Your task to perform on an android device: Open wifi settings Image 0: 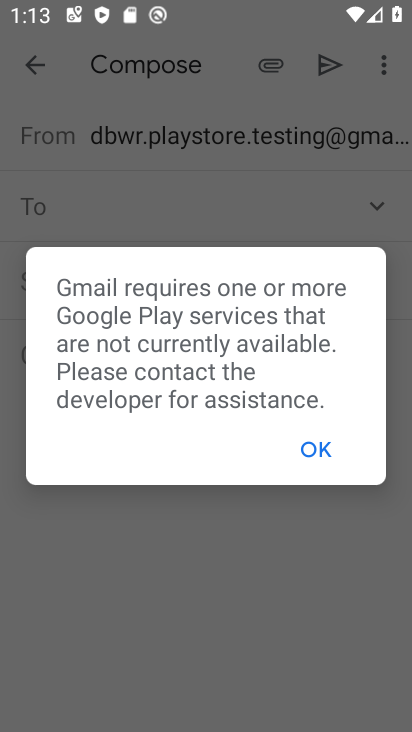
Step 0: press home button
Your task to perform on an android device: Open wifi settings Image 1: 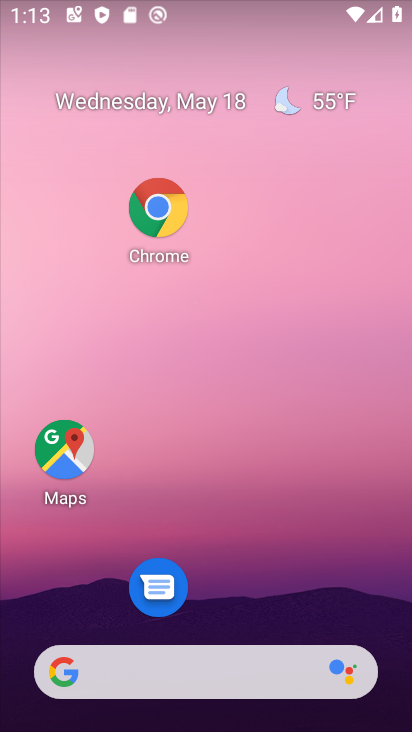
Step 1: drag from (267, 584) to (289, 136)
Your task to perform on an android device: Open wifi settings Image 2: 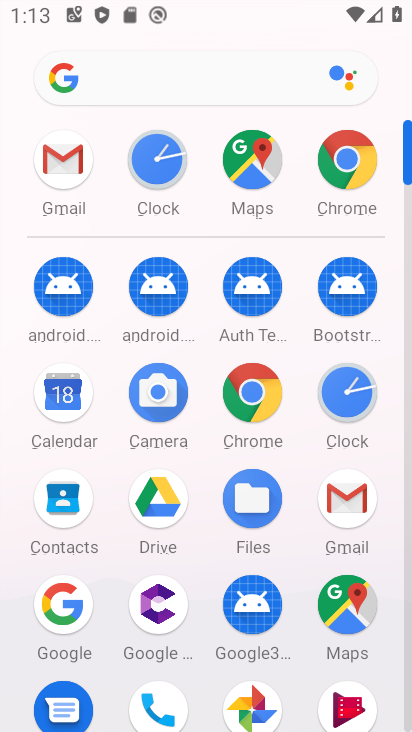
Step 2: drag from (189, 637) to (202, 342)
Your task to perform on an android device: Open wifi settings Image 3: 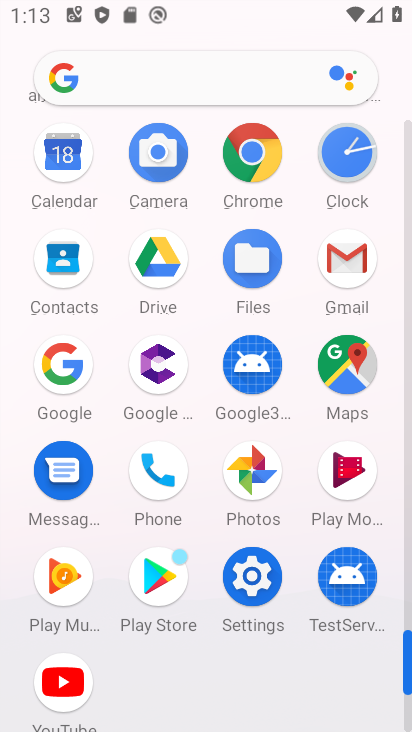
Step 3: click (246, 578)
Your task to perform on an android device: Open wifi settings Image 4: 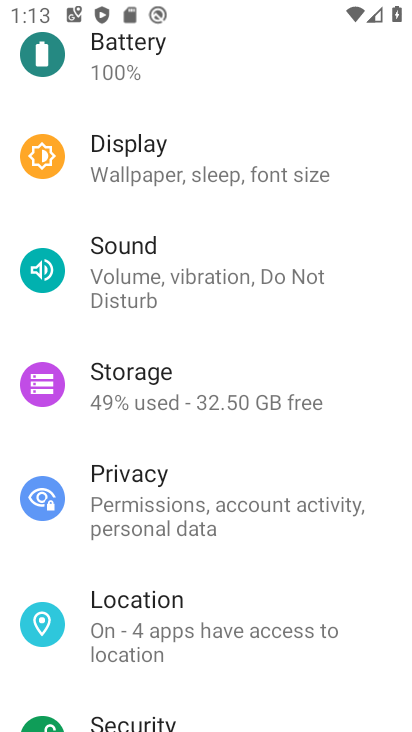
Step 4: drag from (193, 148) to (208, 408)
Your task to perform on an android device: Open wifi settings Image 5: 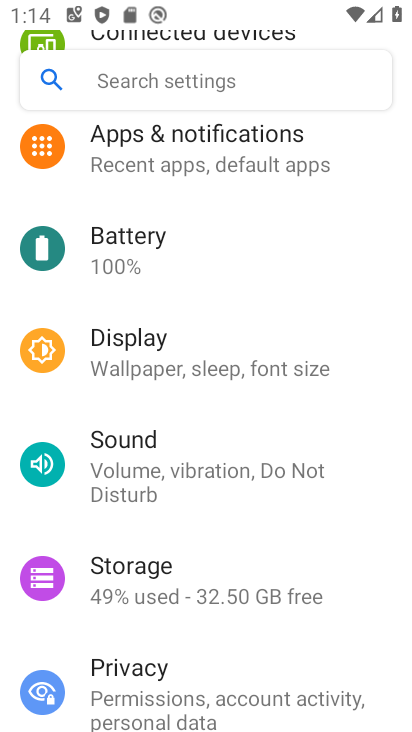
Step 5: click (210, 445)
Your task to perform on an android device: Open wifi settings Image 6: 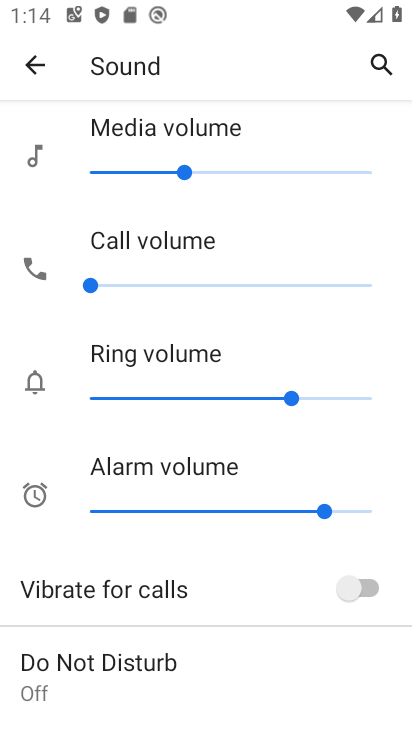
Step 6: press back button
Your task to perform on an android device: Open wifi settings Image 7: 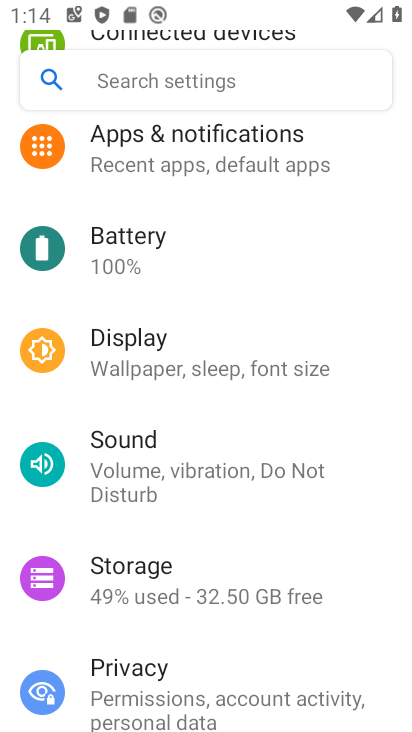
Step 7: drag from (277, 281) to (254, 464)
Your task to perform on an android device: Open wifi settings Image 8: 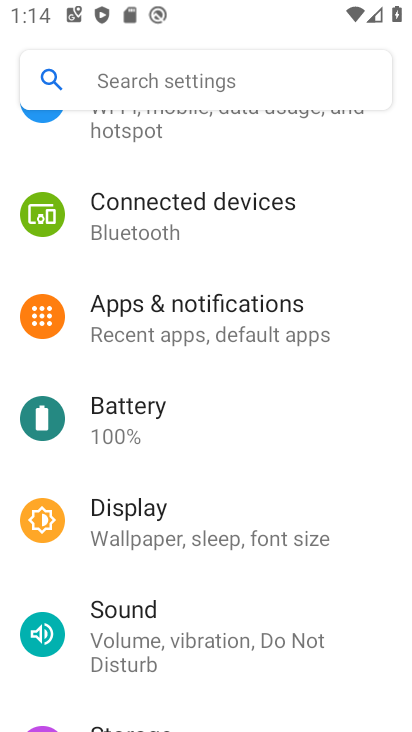
Step 8: drag from (168, 215) to (177, 461)
Your task to perform on an android device: Open wifi settings Image 9: 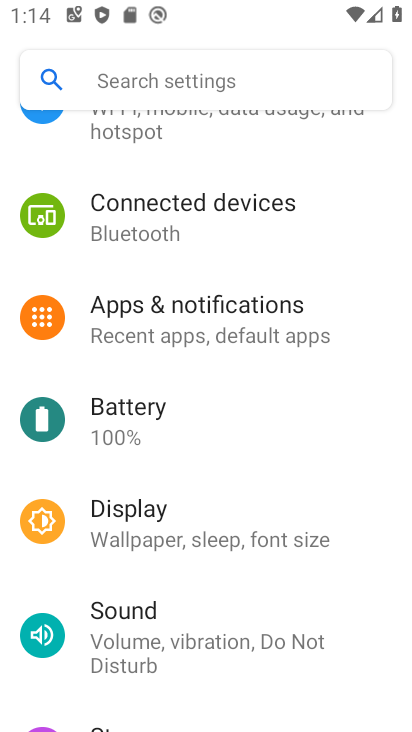
Step 9: click (144, 131)
Your task to perform on an android device: Open wifi settings Image 10: 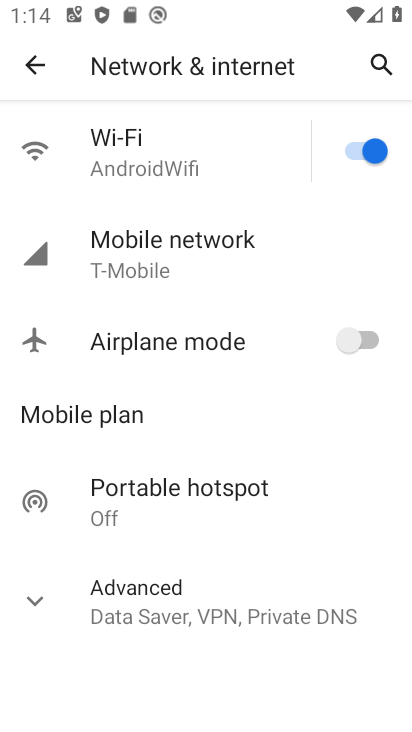
Step 10: click (164, 153)
Your task to perform on an android device: Open wifi settings Image 11: 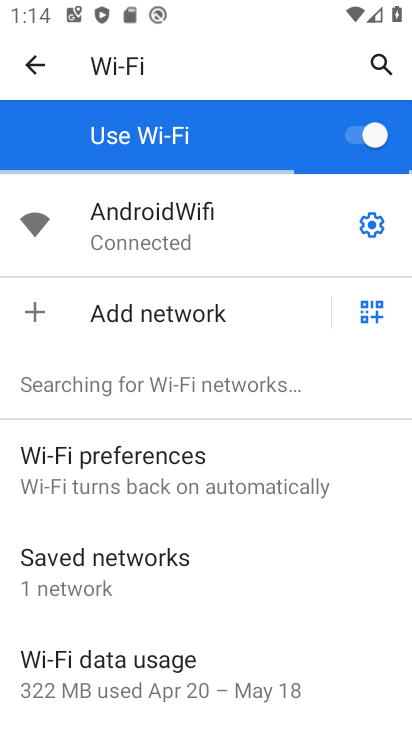
Step 11: task complete